Your task to perform on an android device: turn off data saver in the chrome app Image 0: 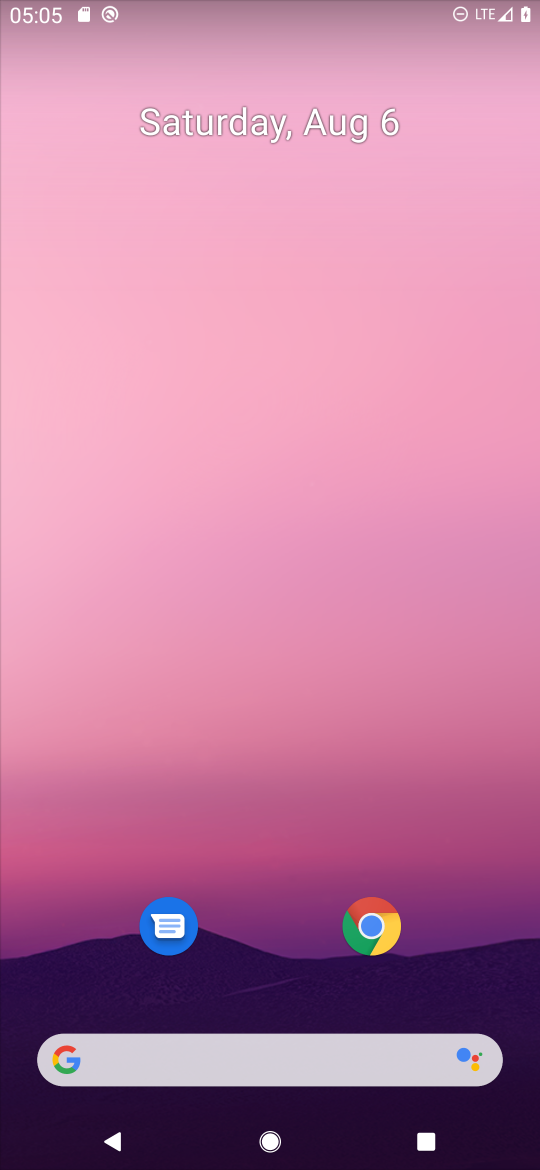
Step 0: click (347, 916)
Your task to perform on an android device: turn off data saver in the chrome app Image 1: 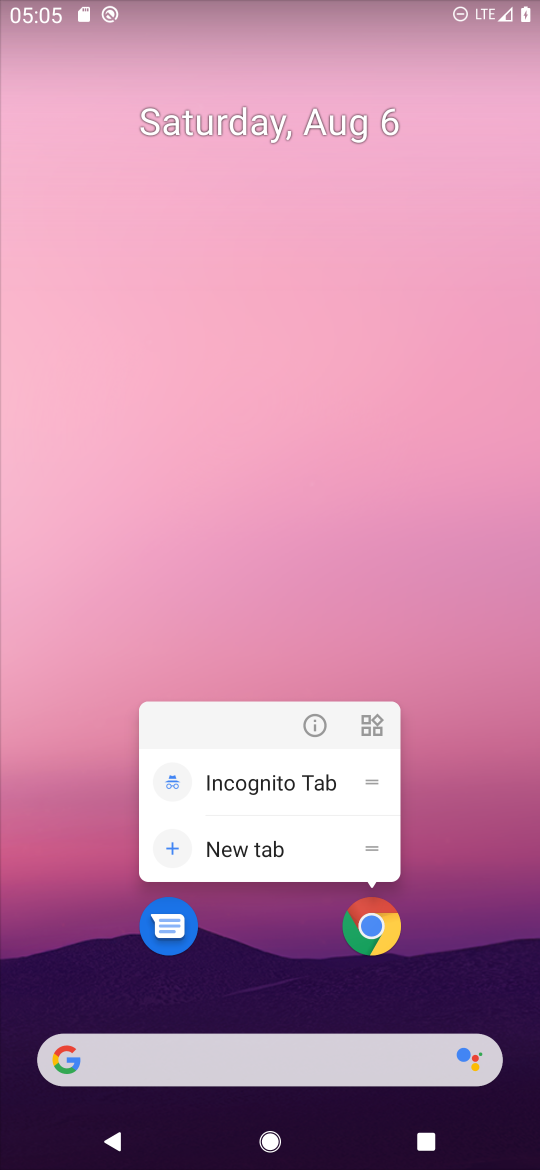
Step 1: click (397, 931)
Your task to perform on an android device: turn off data saver in the chrome app Image 2: 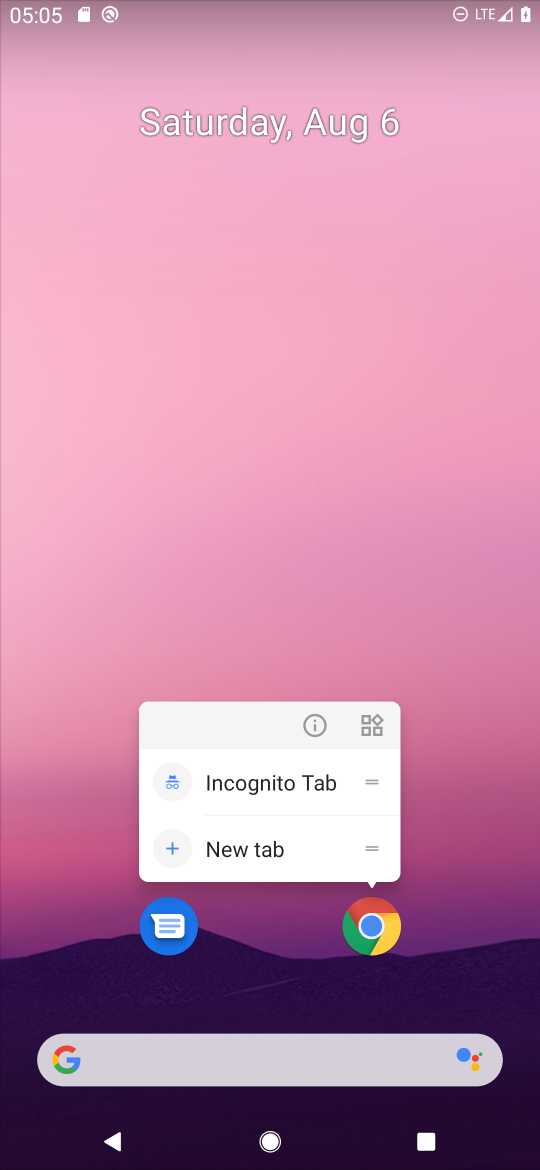
Step 2: click (363, 953)
Your task to perform on an android device: turn off data saver in the chrome app Image 3: 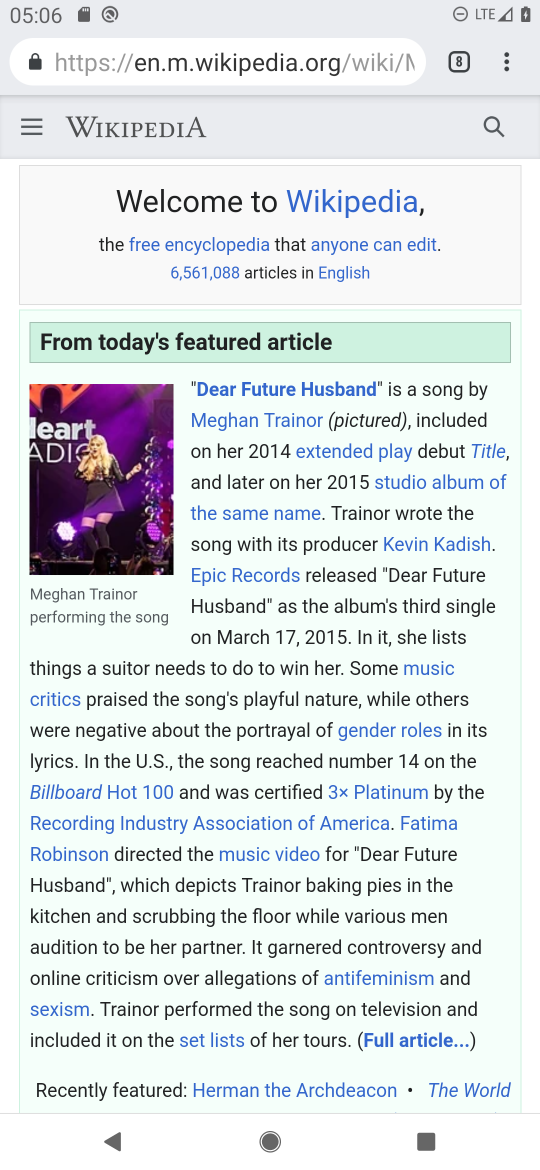
Step 3: click (511, 76)
Your task to perform on an android device: turn off data saver in the chrome app Image 4: 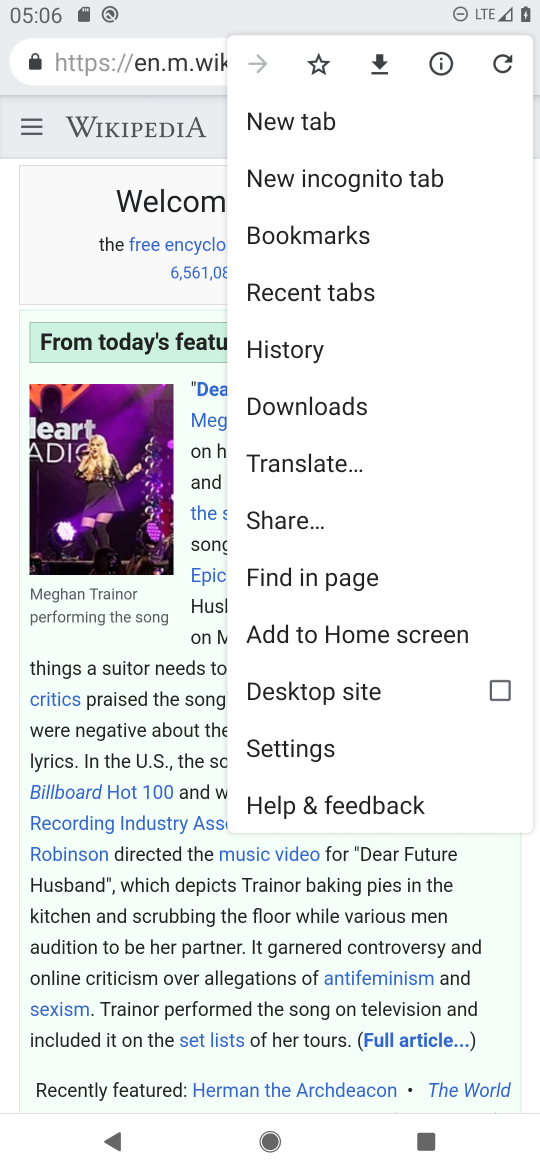
Step 4: click (307, 729)
Your task to perform on an android device: turn off data saver in the chrome app Image 5: 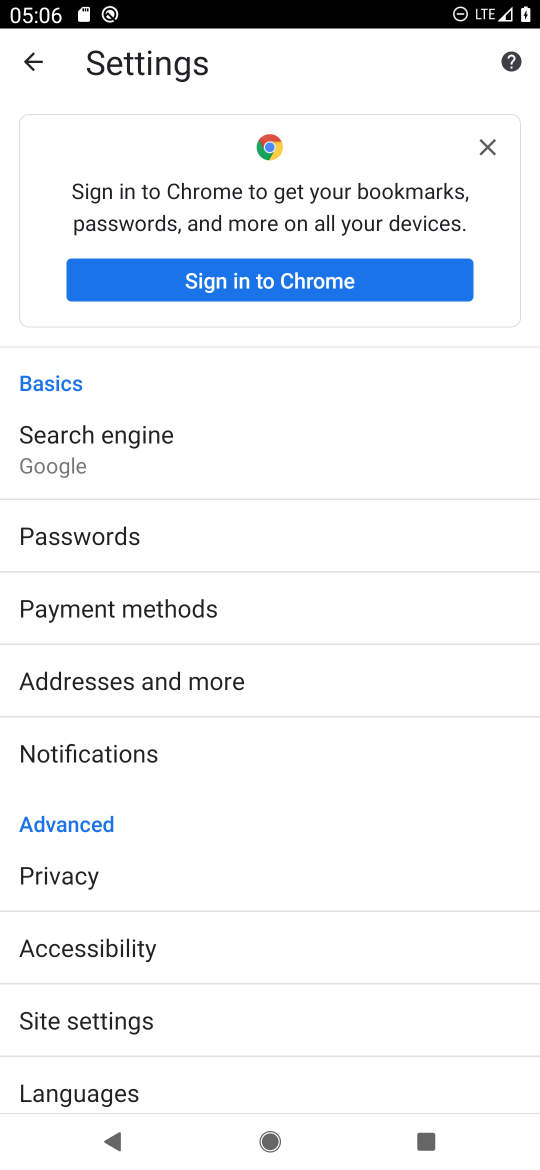
Step 5: drag from (237, 1044) to (237, 705)
Your task to perform on an android device: turn off data saver in the chrome app Image 6: 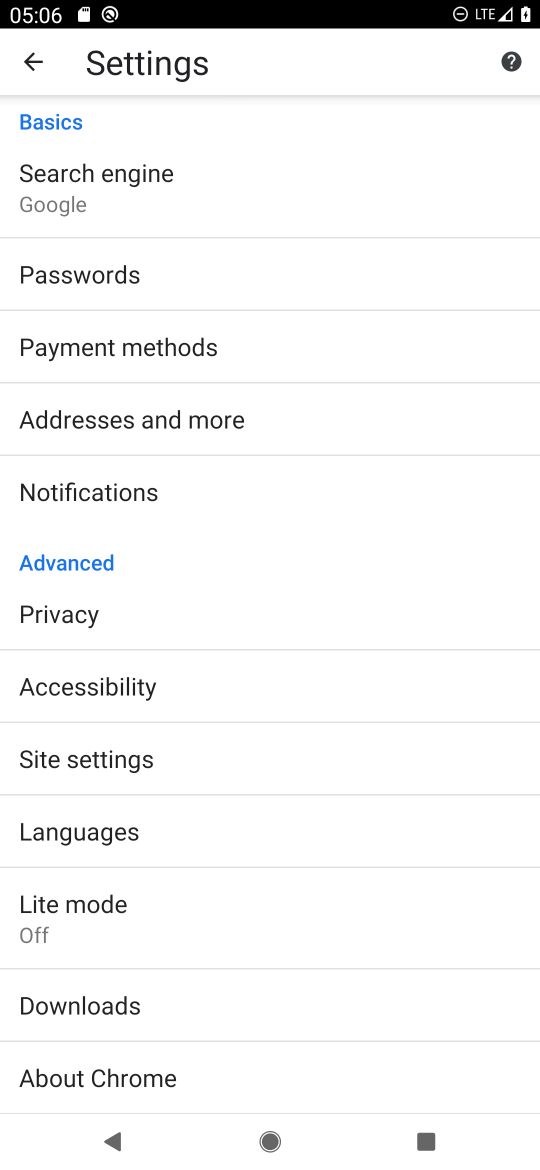
Step 6: click (124, 947)
Your task to perform on an android device: turn off data saver in the chrome app Image 7: 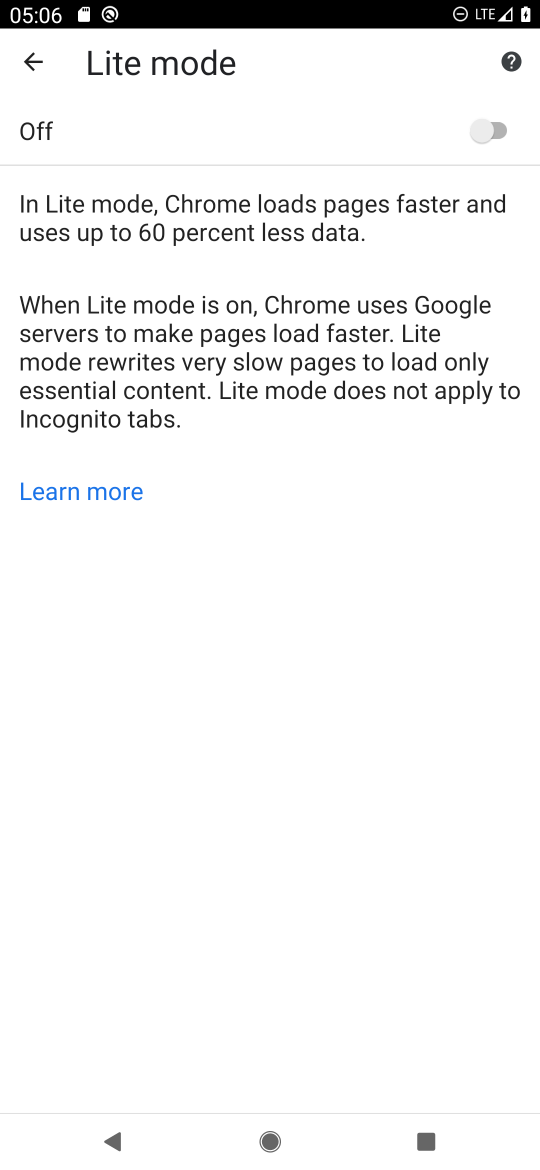
Step 7: task complete